Your task to perform on an android device: Clear the cart on ebay.com. Image 0: 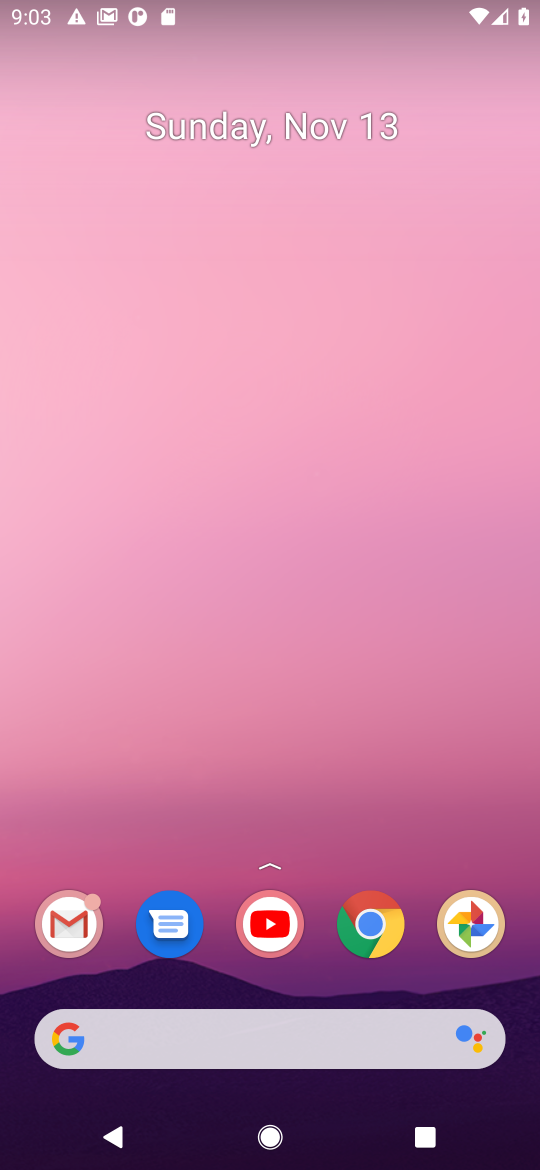
Step 0: click (361, 929)
Your task to perform on an android device: Clear the cart on ebay.com. Image 1: 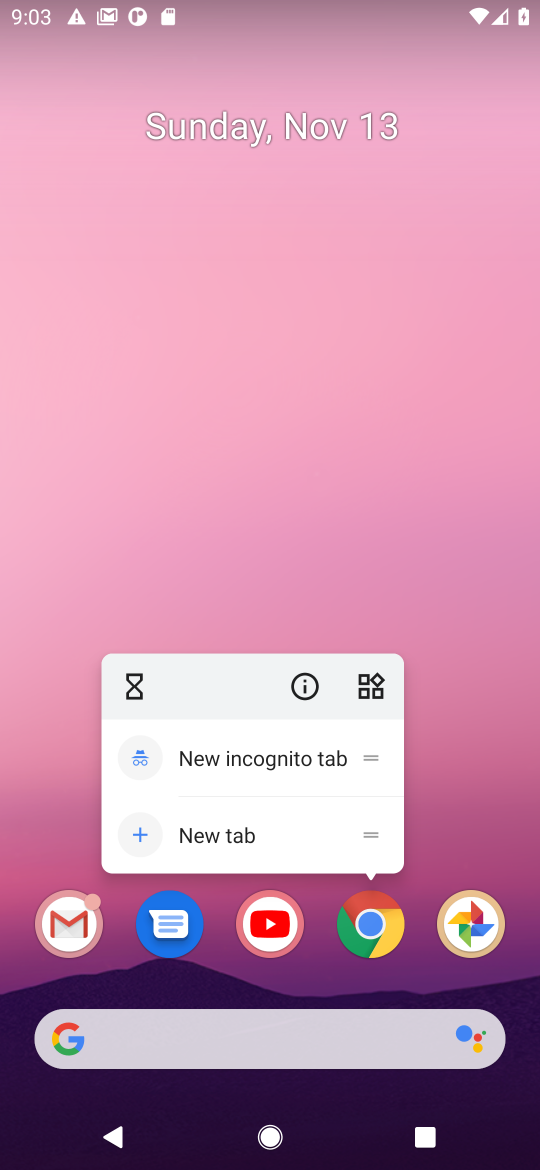
Step 1: click (371, 935)
Your task to perform on an android device: Clear the cart on ebay.com. Image 2: 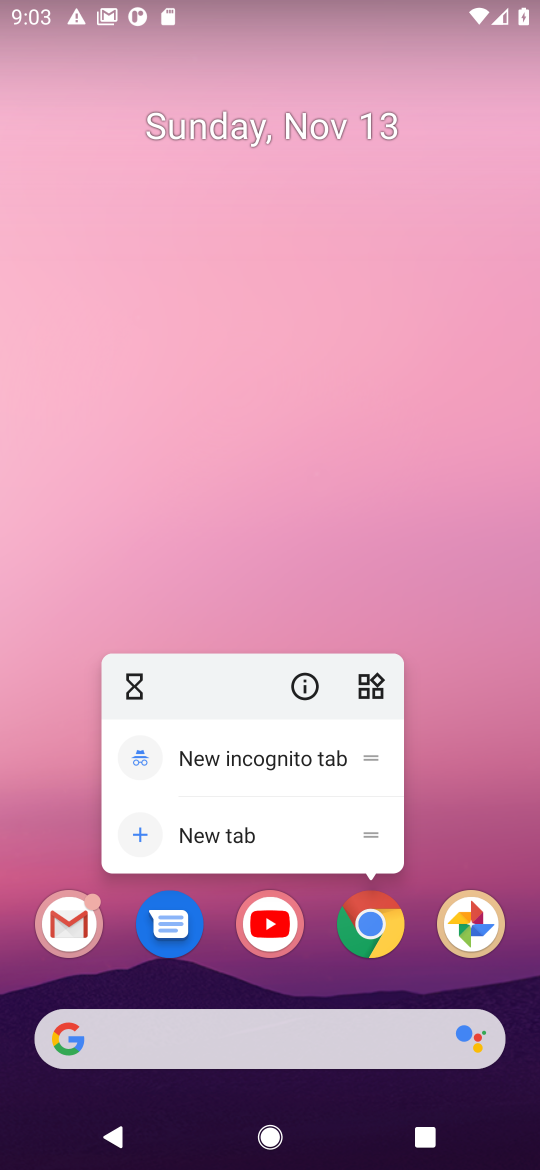
Step 2: click (371, 935)
Your task to perform on an android device: Clear the cart on ebay.com. Image 3: 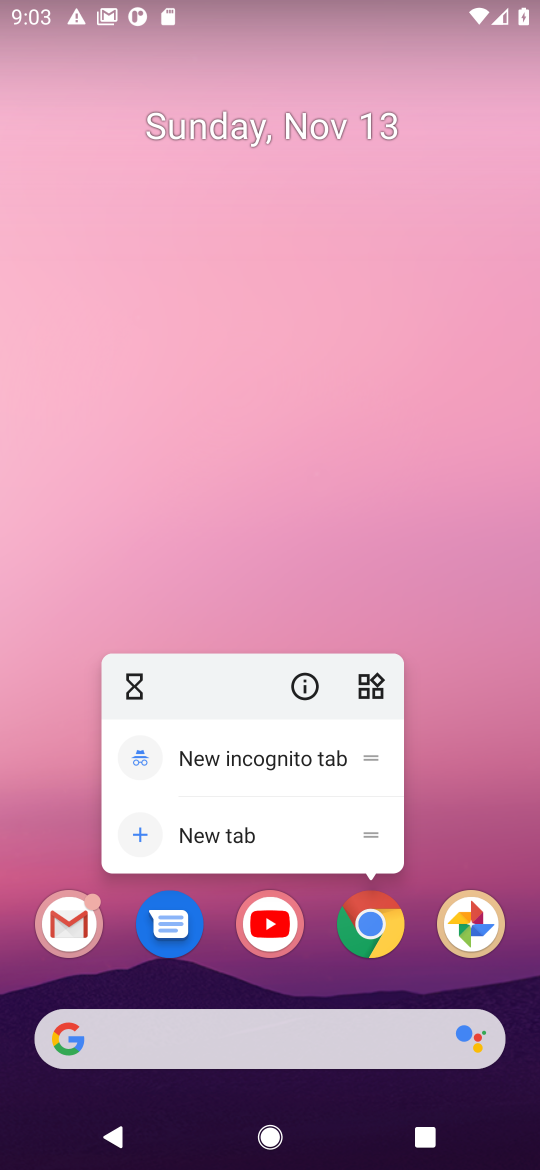
Step 3: click (371, 935)
Your task to perform on an android device: Clear the cart on ebay.com. Image 4: 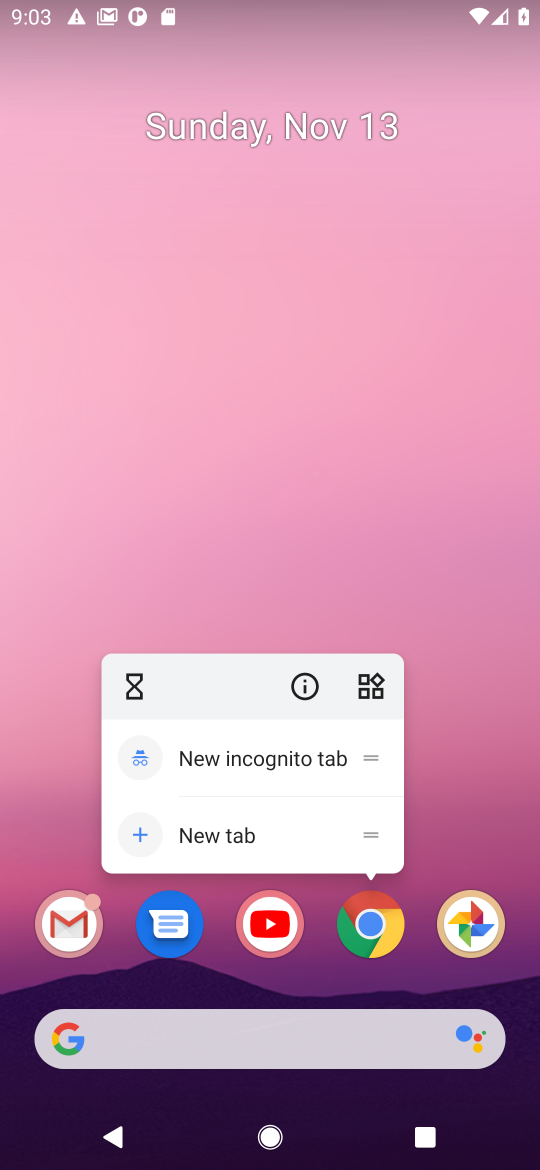
Step 4: click (371, 935)
Your task to perform on an android device: Clear the cart on ebay.com. Image 5: 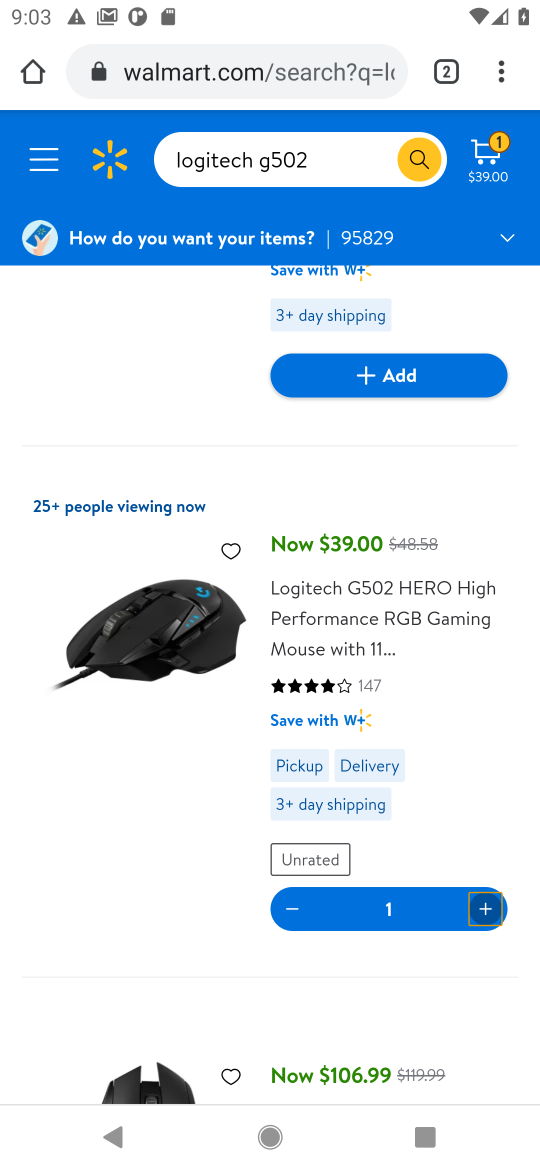
Step 5: click (173, 73)
Your task to perform on an android device: Clear the cart on ebay.com. Image 6: 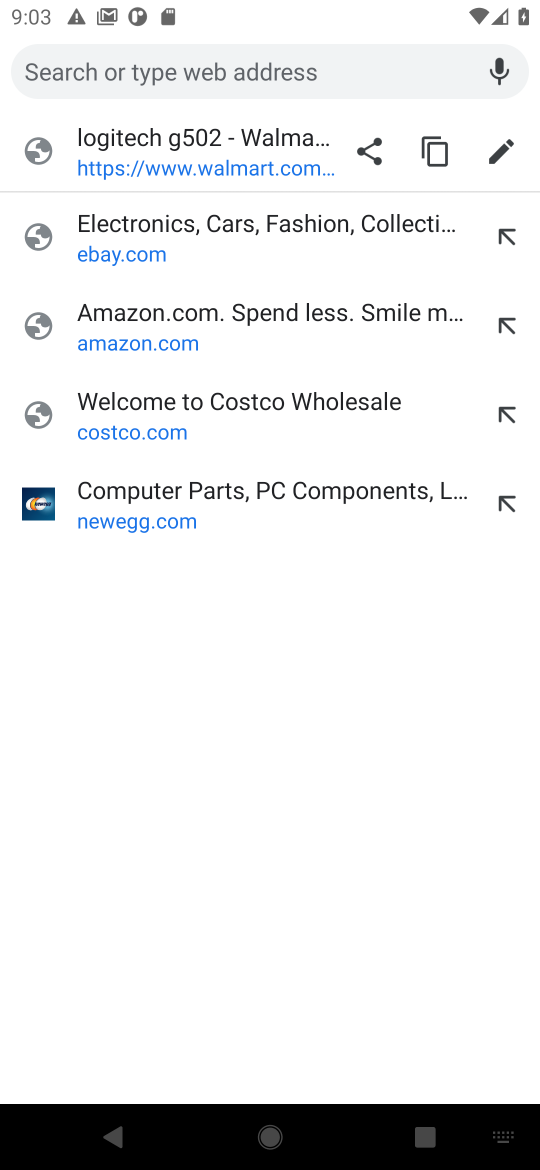
Step 6: click (130, 248)
Your task to perform on an android device: Clear the cart on ebay.com. Image 7: 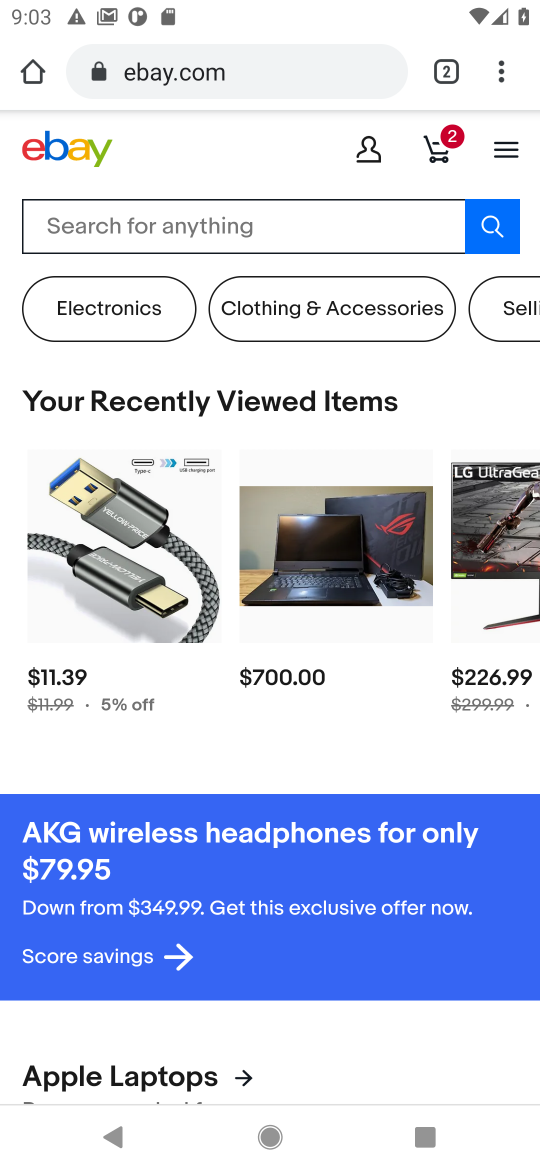
Step 7: click (441, 139)
Your task to perform on an android device: Clear the cart on ebay.com. Image 8: 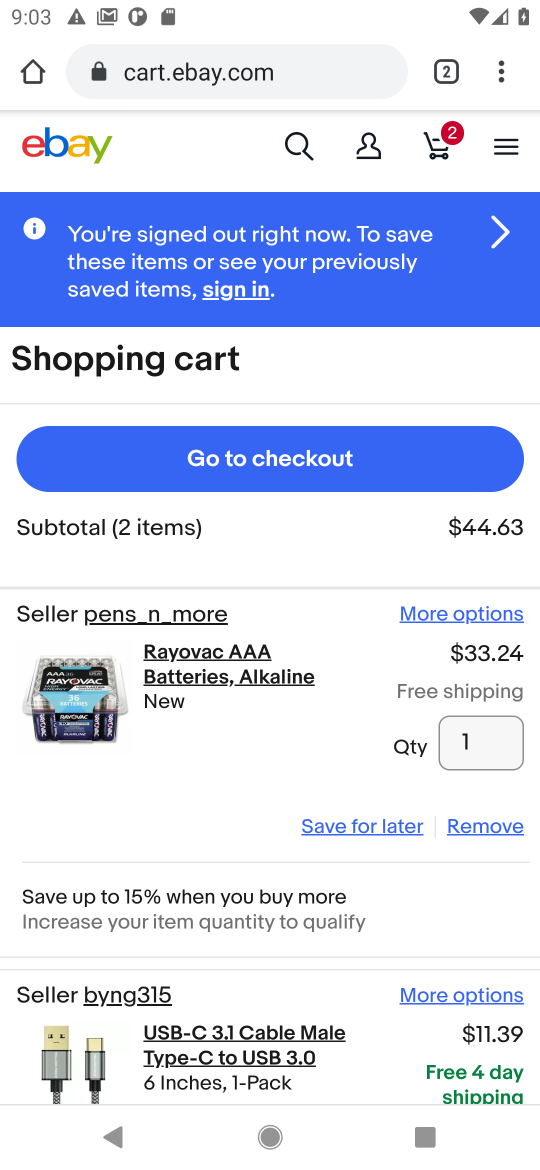
Step 8: click (478, 825)
Your task to perform on an android device: Clear the cart on ebay.com. Image 9: 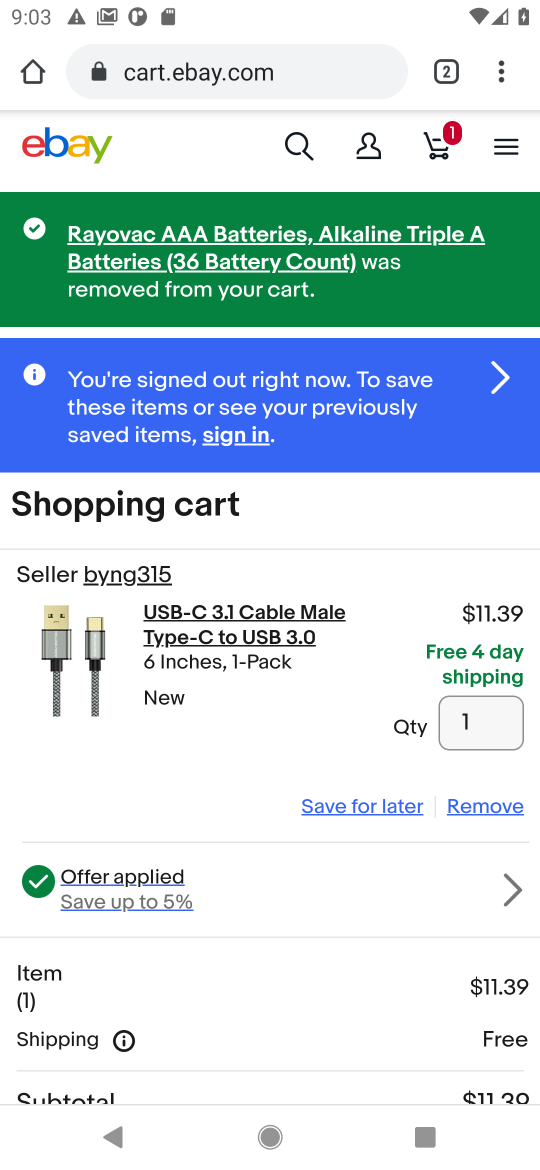
Step 9: click (478, 807)
Your task to perform on an android device: Clear the cart on ebay.com. Image 10: 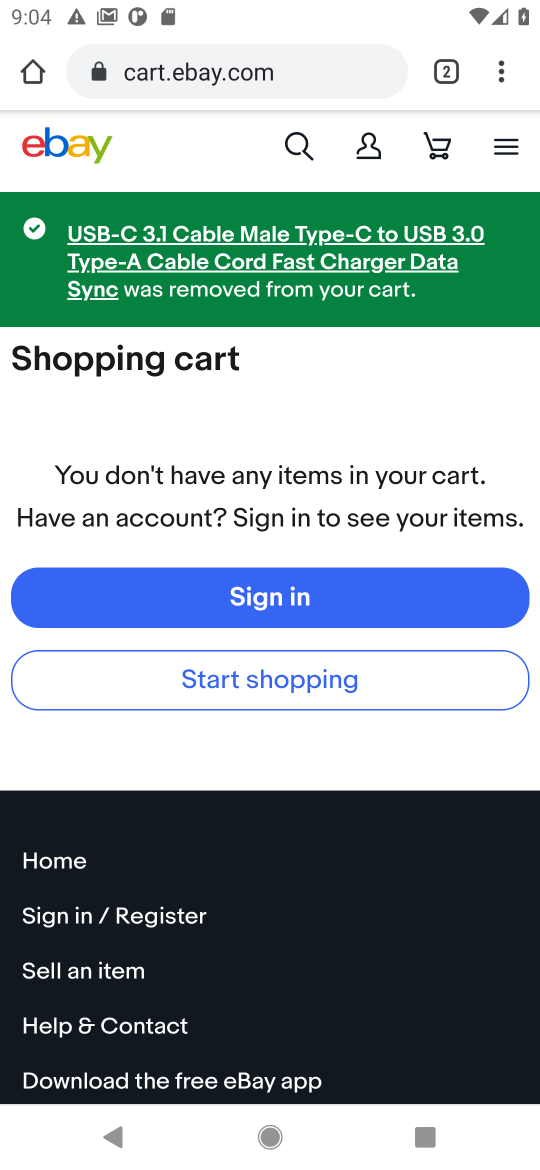
Step 10: task complete